Your task to perform on an android device: open sync settings in chrome Image 0: 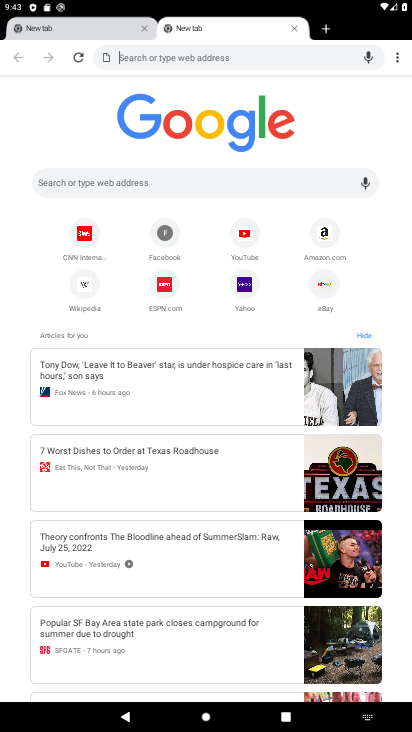
Step 0: click (390, 55)
Your task to perform on an android device: open sync settings in chrome Image 1: 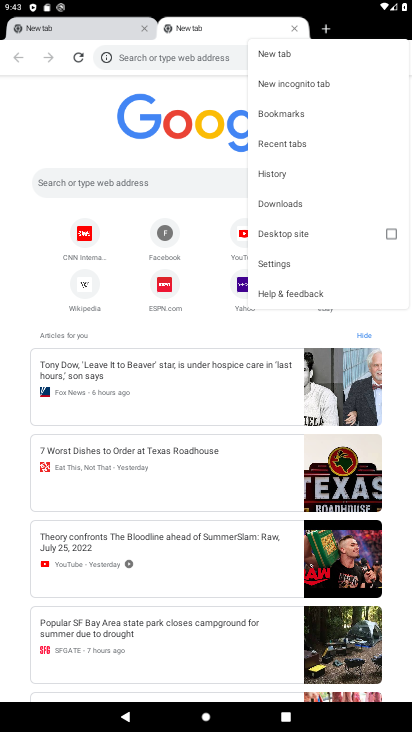
Step 1: click (280, 256)
Your task to perform on an android device: open sync settings in chrome Image 2: 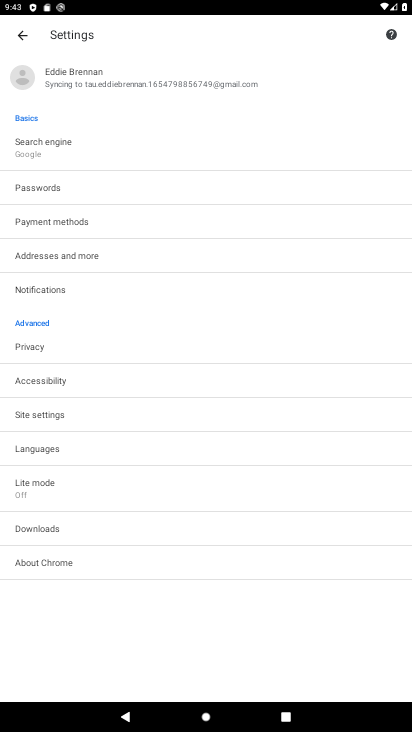
Step 2: click (112, 91)
Your task to perform on an android device: open sync settings in chrome Image 3: 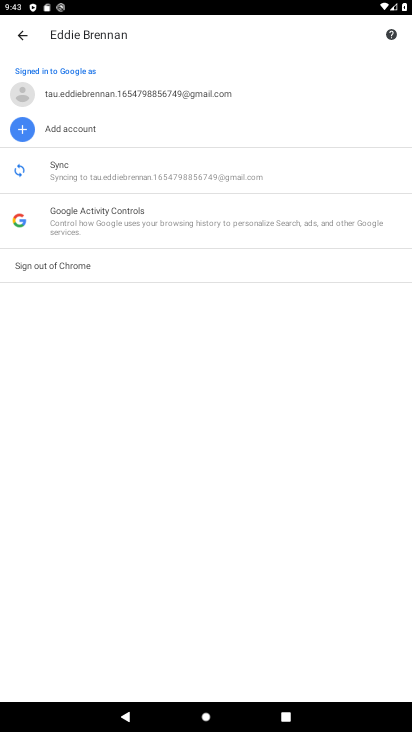
Step 3: task complete